Your task to perform on an android device: Open display settings Image 0: 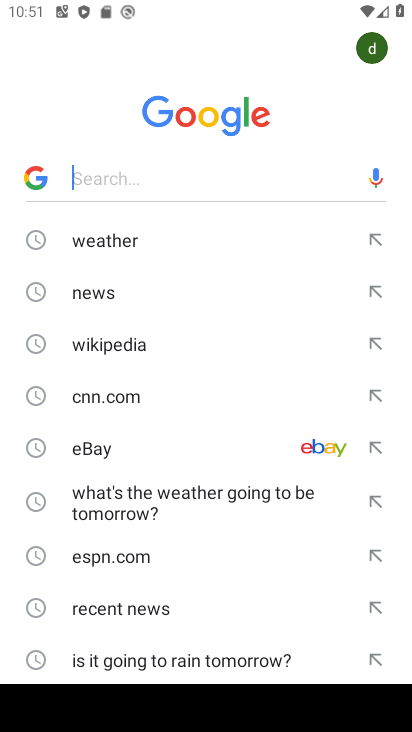
Step 0: task complete